Your task to perform on an android device: change alarm snooze length Image 0: 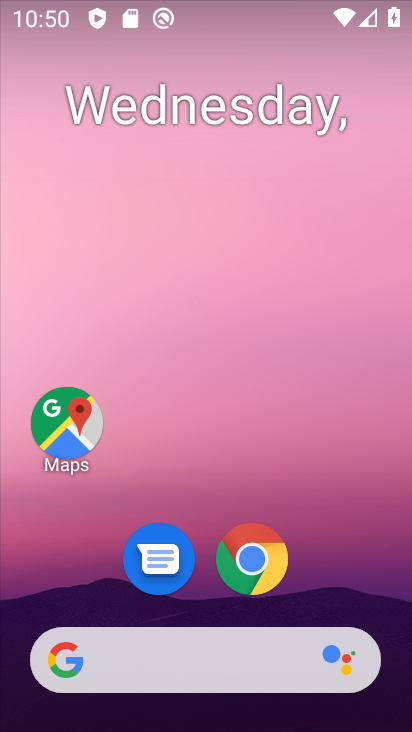
Step 0: drag from (346, 575) to (363, 93)
Your task to perform on an android device: change alarm snooze length Image 1: 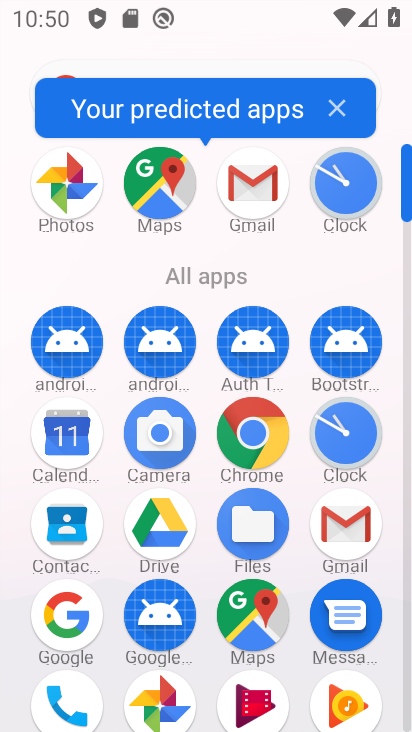
Step 1: click (349, 186)
Your task to perform on an android device: change alarm snooze length Image 2: 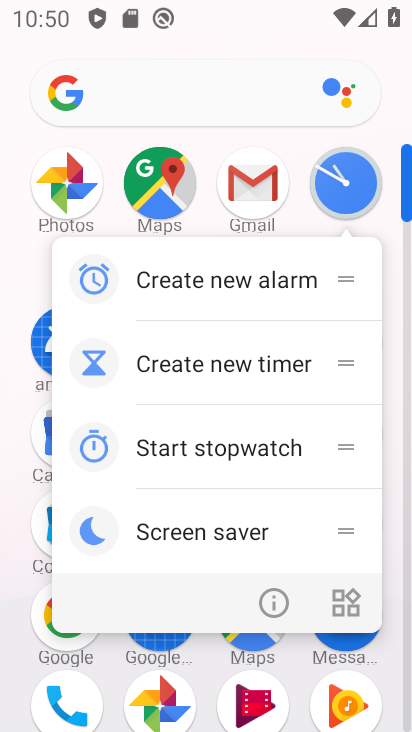
Step 2: click (339, 187)
Your task to perform on an android device: change alarm snooze length Image 3: 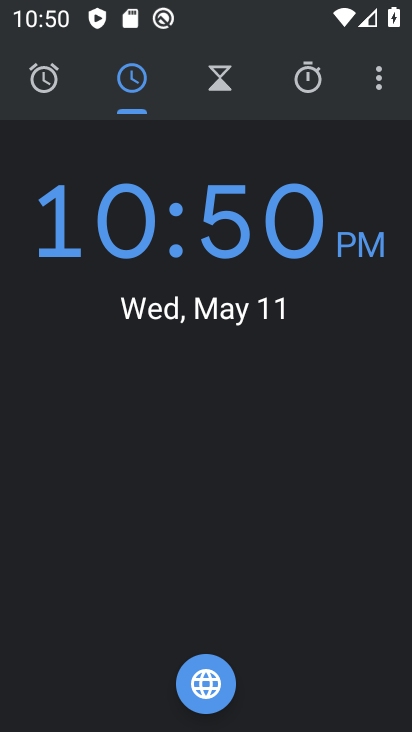
Step 3: click (384, 81)
Your task to perform on an android device: change alarm snooze length Image 4: 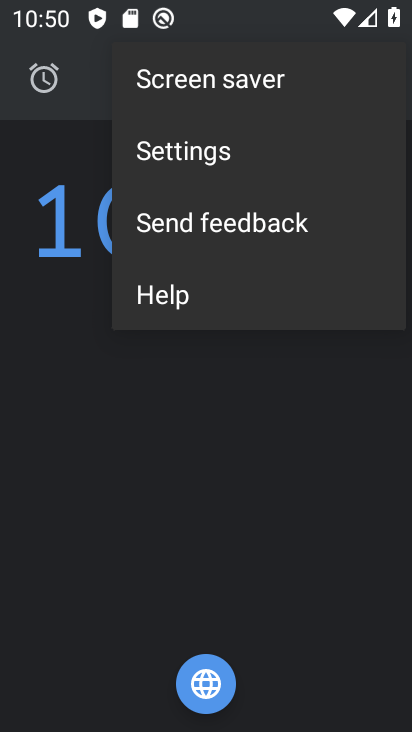
Step 4: click (189, 140)
Your task to perform on an android device: change alarm snooze length Image 5: 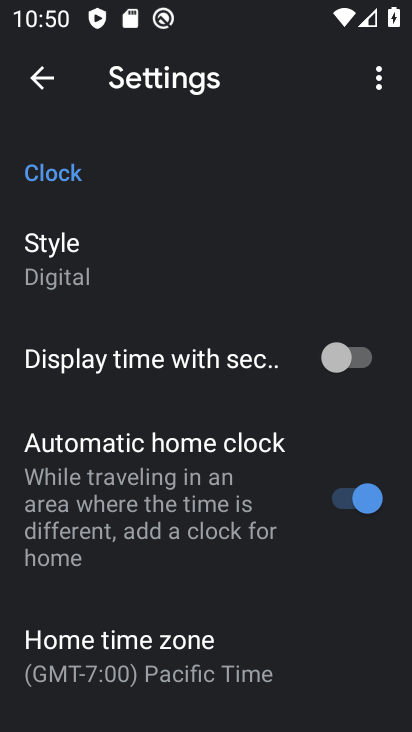
Step 5: drag from (244, 546) to (267, 276)
Your task to perform on an android device: change alarm snooze length Image 6: 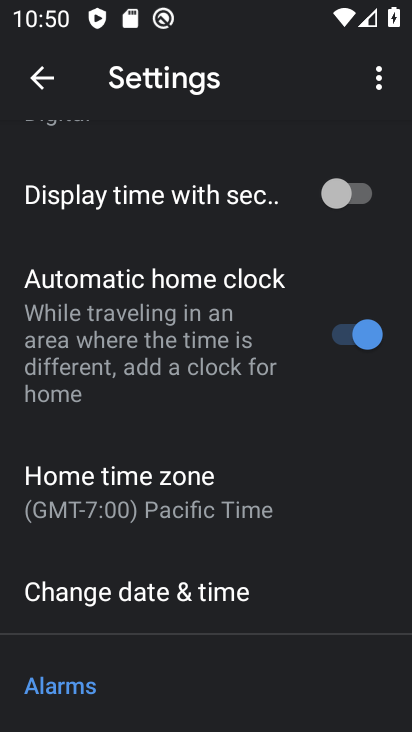
Step 6: drag from (286, 625) to (336, 253)
Your task to perform on an android device: change alarm snooze length Image 7: 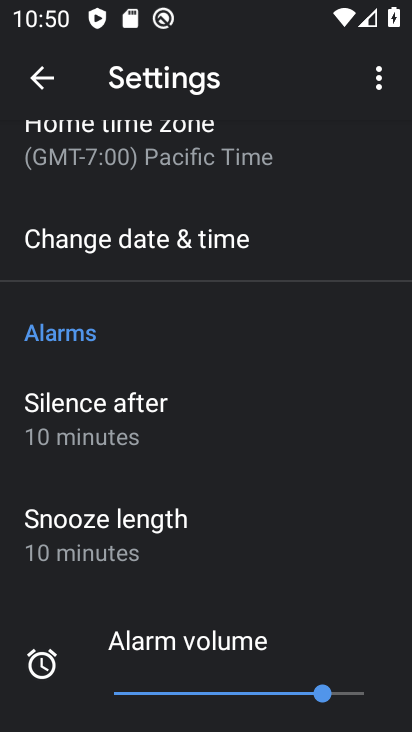
Step 7: click (118, 517)
Your task to perform on an android device: change alarm snooze length Image 8: 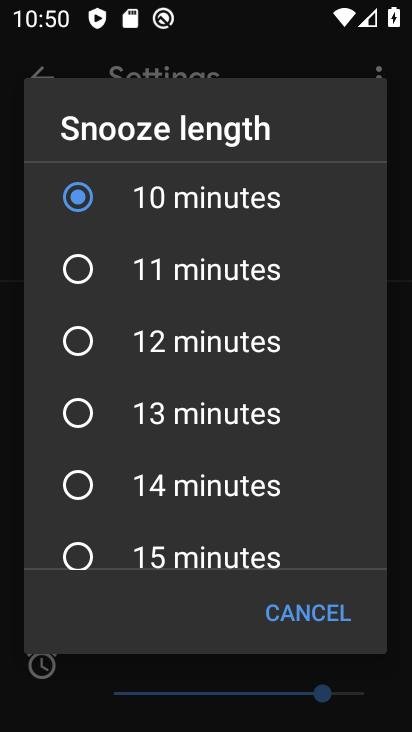
Step 8: click (198, 267)
Your task to perform on an android device: change alarm snooze length Image 9: 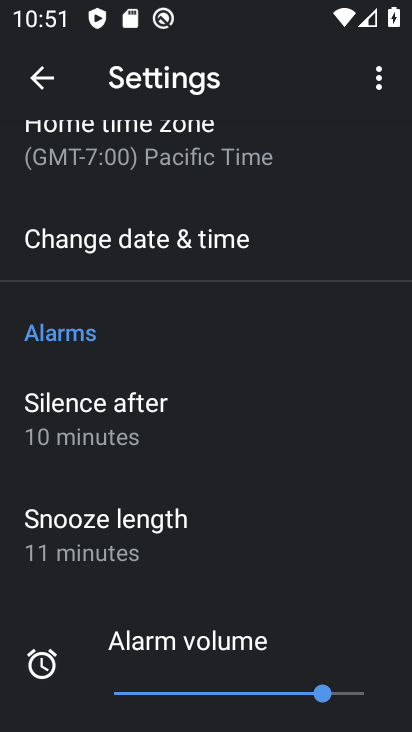
Step 9: task complete